Your task to perform on an android device: Open internet settings Image 0: 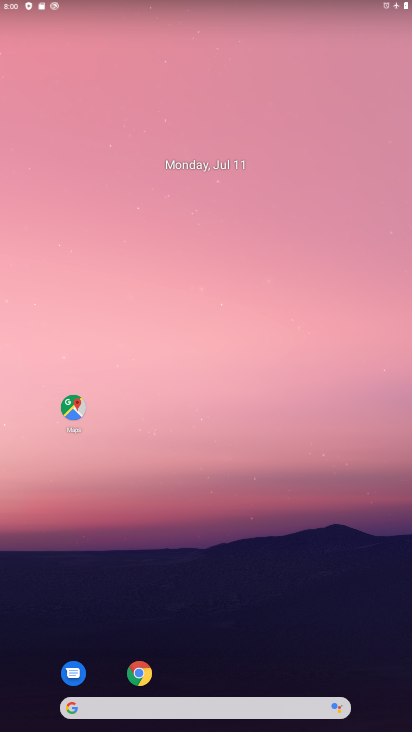
Step 0: drag from (256, 586) to (192, 121)
Your task to perform on an android device: Open internet settings Image 1: 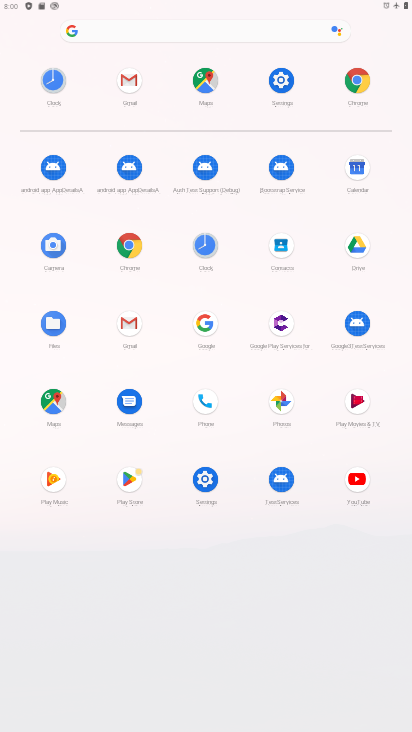
Step 1: click (280, 86)
Your task to perform on an android device: Open internet settings Image 2: 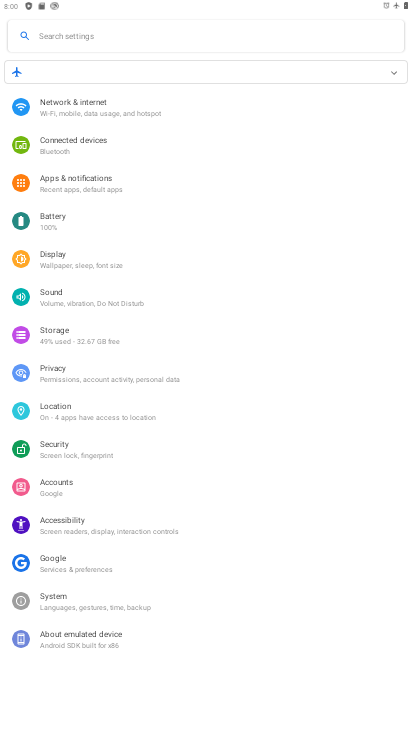
Step 2: click (62, 104)
Your task to perform on an android device: Open internet settings Image 3: 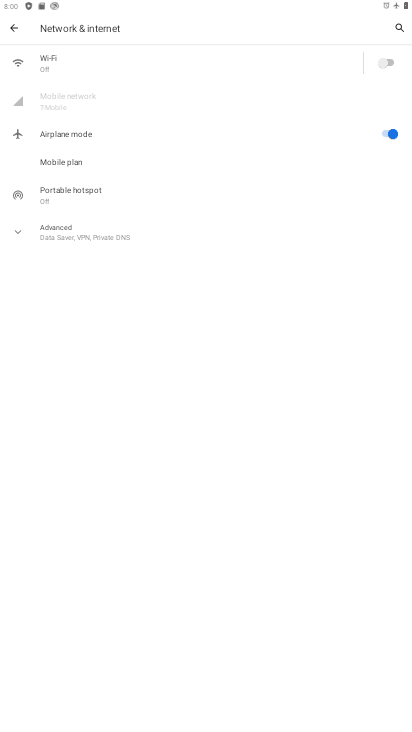
Step 3: click (74, 225)
Your task to perform on an android device: Open internet settings Image 4: 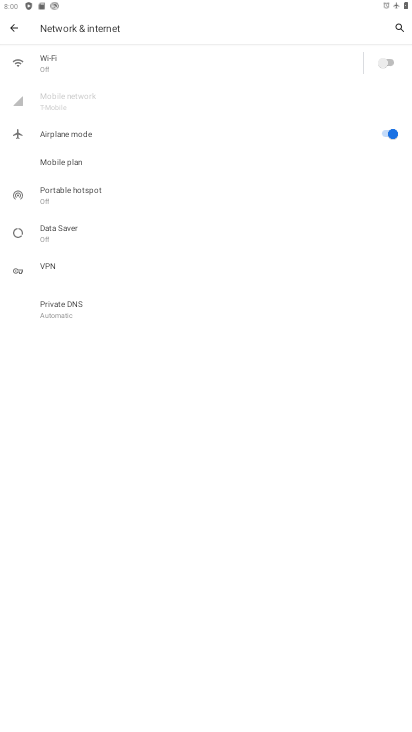
Step 4: task complete